Your task to perform on an android device: toggle notifications settings in the gmail app Image 0: 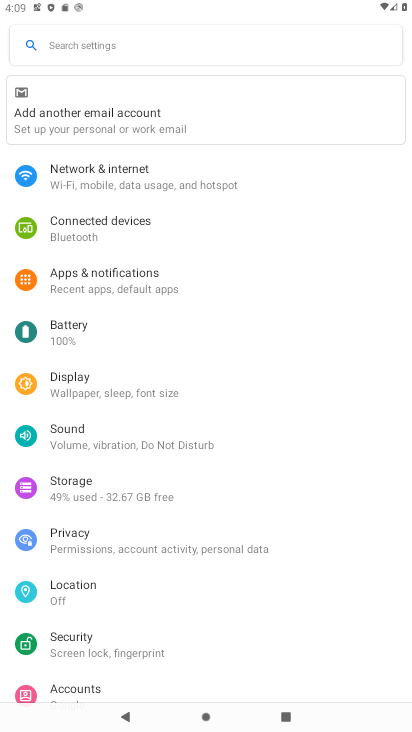
Step 0: press home button
Your task to perform on an android device: toggle notifications settings in the gmail app Image 1: 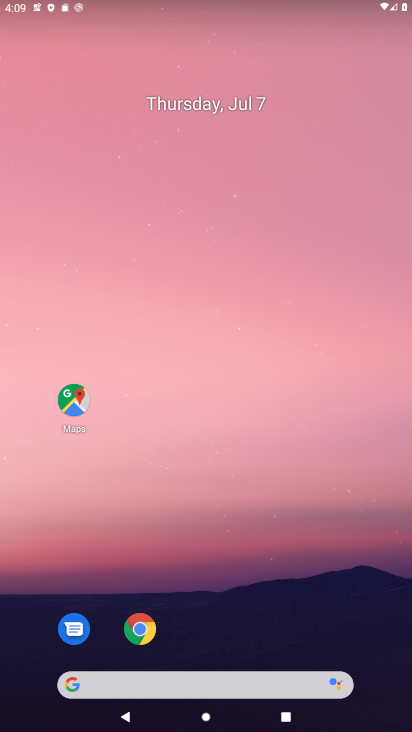
Step 1: click (233, 314)
Your task to perform on an android device: toggle notifications settings in the gmail app Image 2: 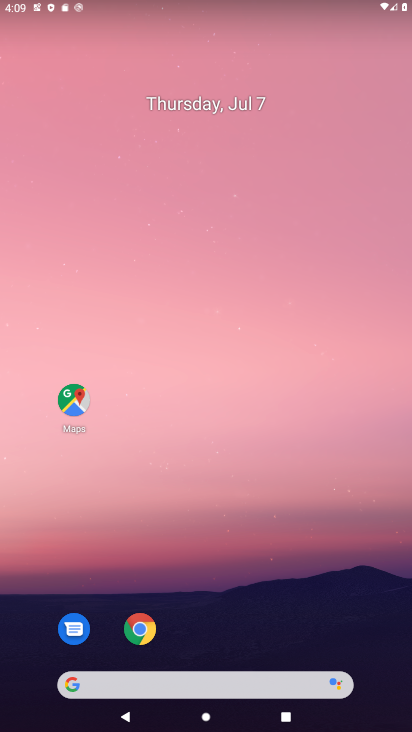
Step 2: drag from (154, 631) to (261, 223)
Your task to perform on an android device: toggle notifications settings in the gmail app Image 3: 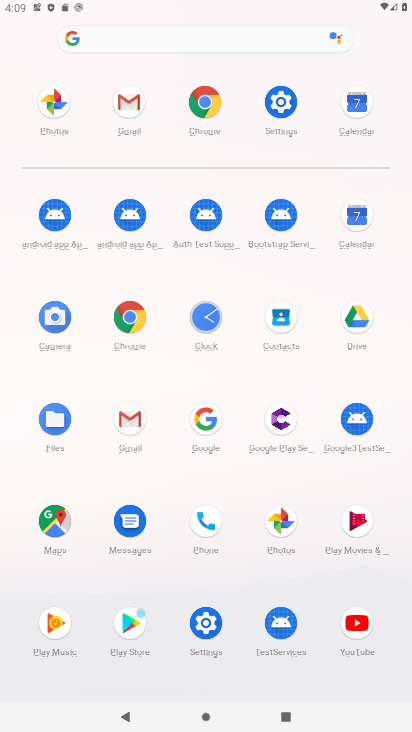
Step 3: click (115, 103)
Your task to perform on an android device: toggle notifications settings in the gmail app Image 4: 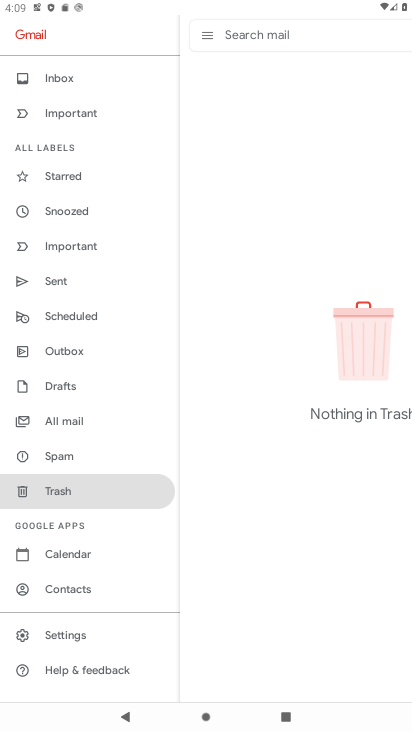
Step 4: click (92, 637)
Your task to perform on an android device: toggle notifications settings in the gmail app Image 5: 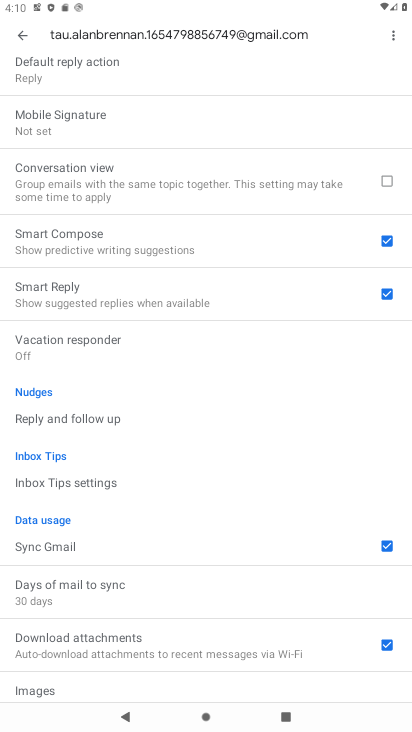
Step 5: drag from (108, 104) to (128, 514)
Your task to perform on an android device: toggle notifications settings in the gmail app Image 6: 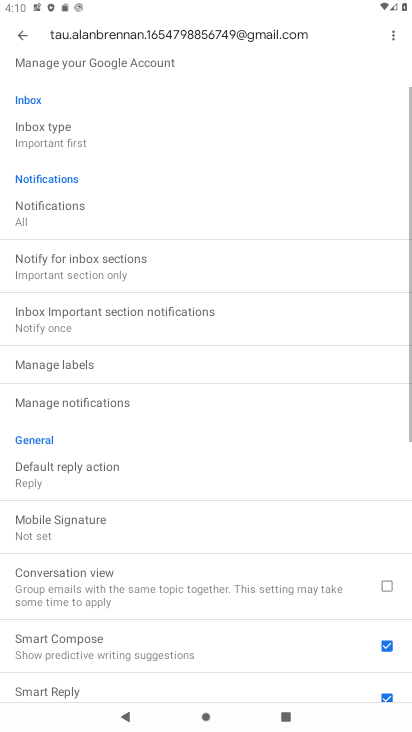
Step 6: click (73, 221)
Your task to perform on an android device: toggle notifications settings in the gmail app Image 7: 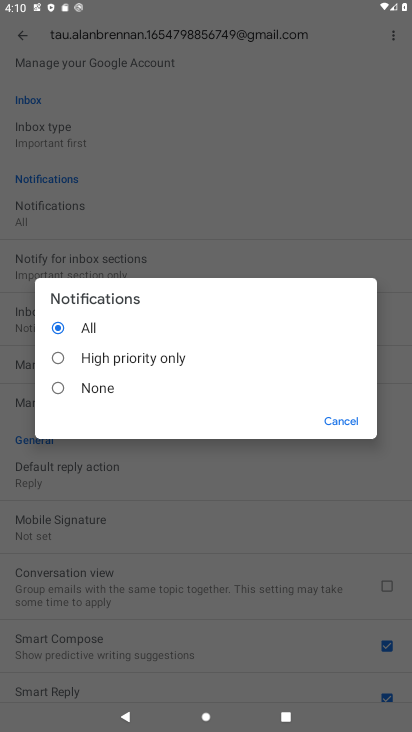
Step 7: click (80, 386)
Your task to perform on an android device: toggle notifications settings in the gmail app Image 8: 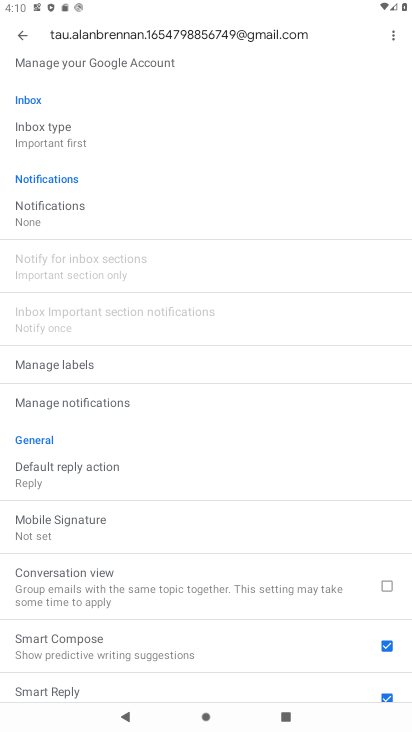
Step 8: task complete